Your task to perform on an android device: Set an alarm for 4pm Image 0: 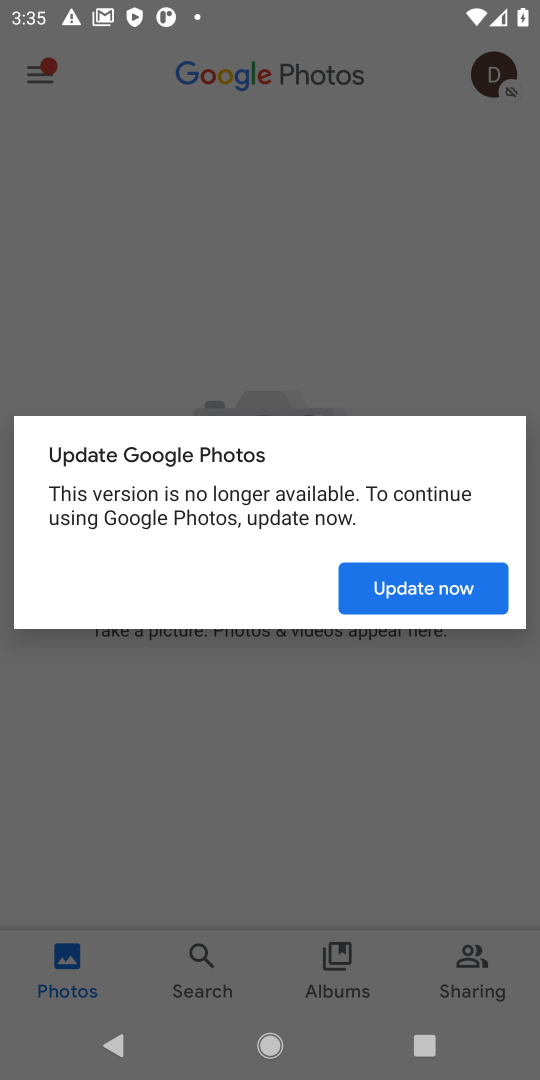
Step 0: press home button
Your task to perform on an android device: Set an alarm for 4pm Image 1: 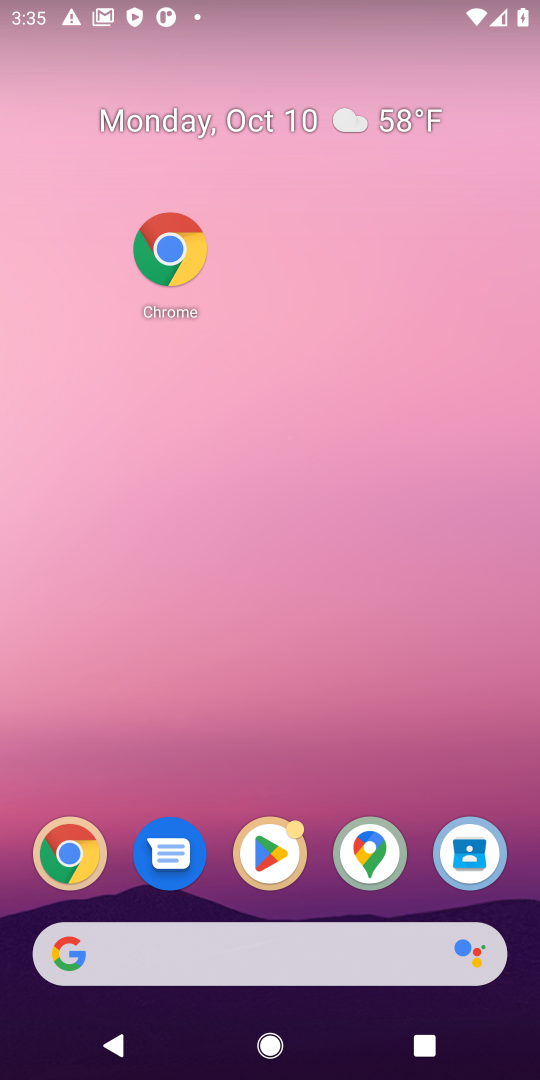
Step 1: drag from (223, 893) to (159, 179)
Your task to perform on an android device: Set an alarm for 4pm Image 2: 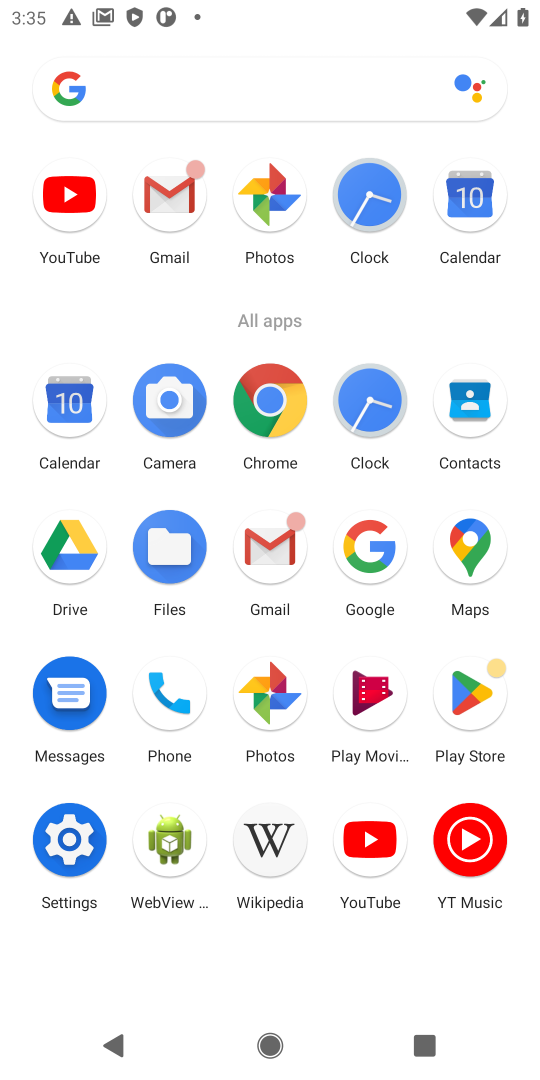
Step 2: click (380, 418)
Your task to perform on an android device: Set an alarm for 4pm Image 3: 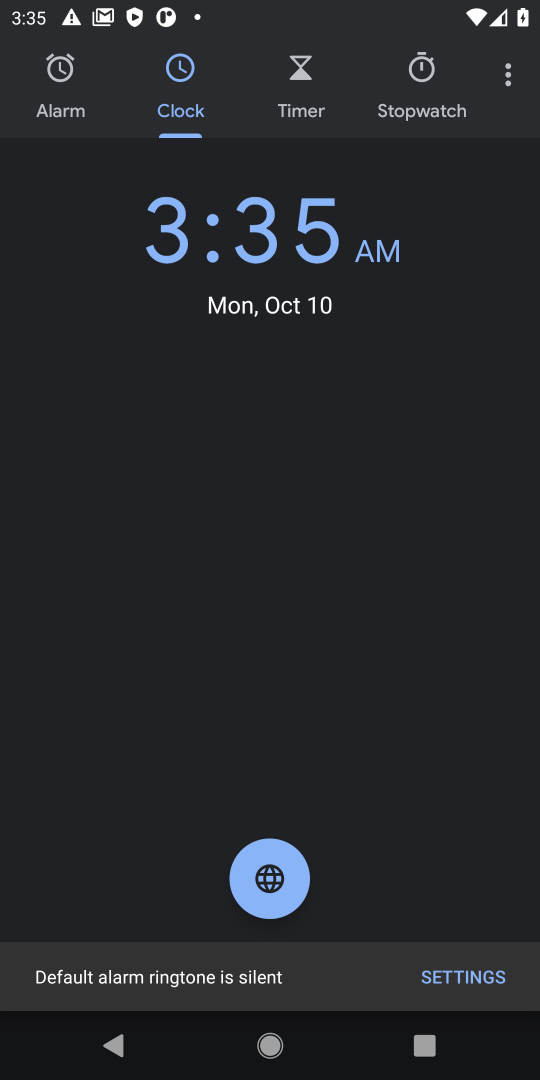
Step 3: click (49, 63)
Your task to perform on an android device: Set an alarm for 4pm Image 4: 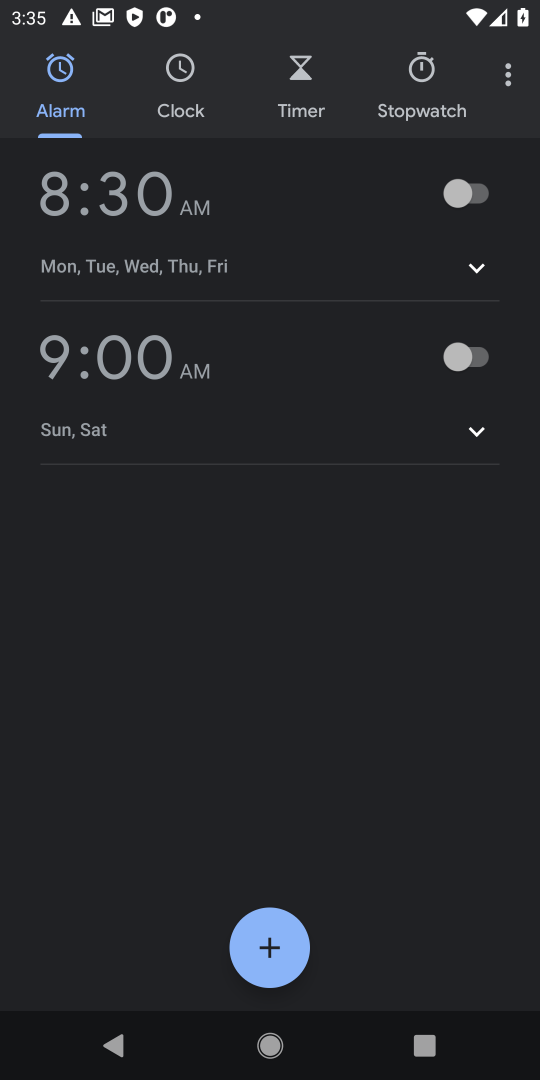
Step 4: click (118, 224)
Your task to perform on an android device: Set an alarm for 4pm Image 5: 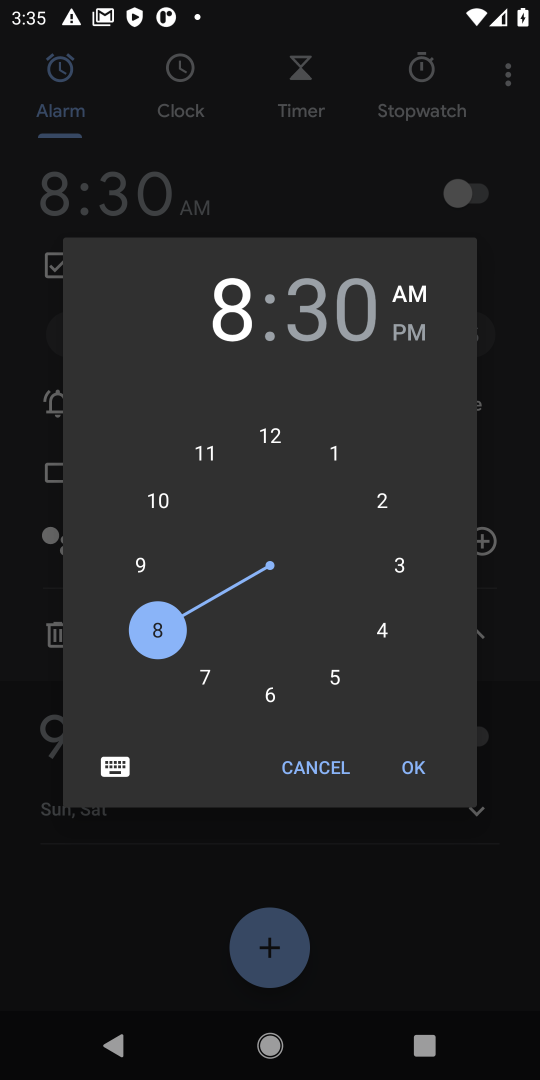
Step 5: click (380, 626)
Your task to perform on an android device: Set an alarm for 4pm Image 6: 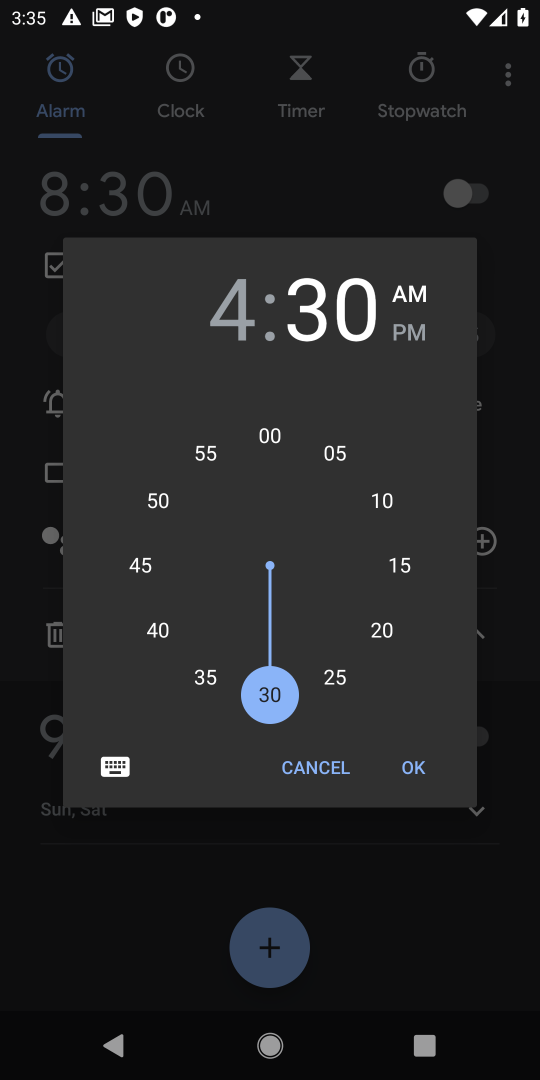
Step 6: click (261, 434)
Your task to perform on an android device: Set an alarm for 4pm Image 7: 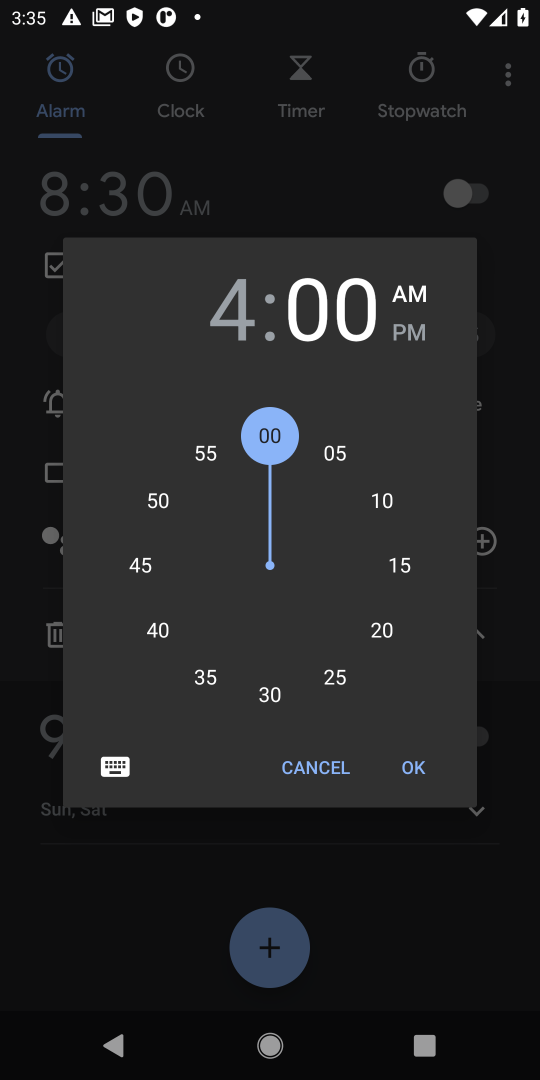
Step 7: click (409, 338)
Your task to perform on an android device: Set an alarm for 4pm Image 8: 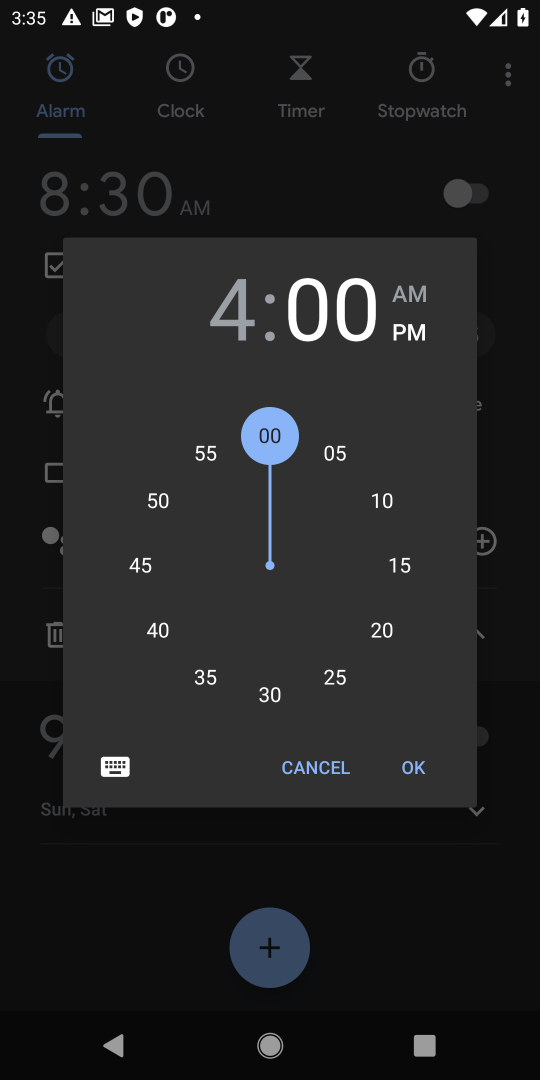
Step 8: click (401, 770)
Your task to perform on an android device: Set an alarm for 4pm Image 9: 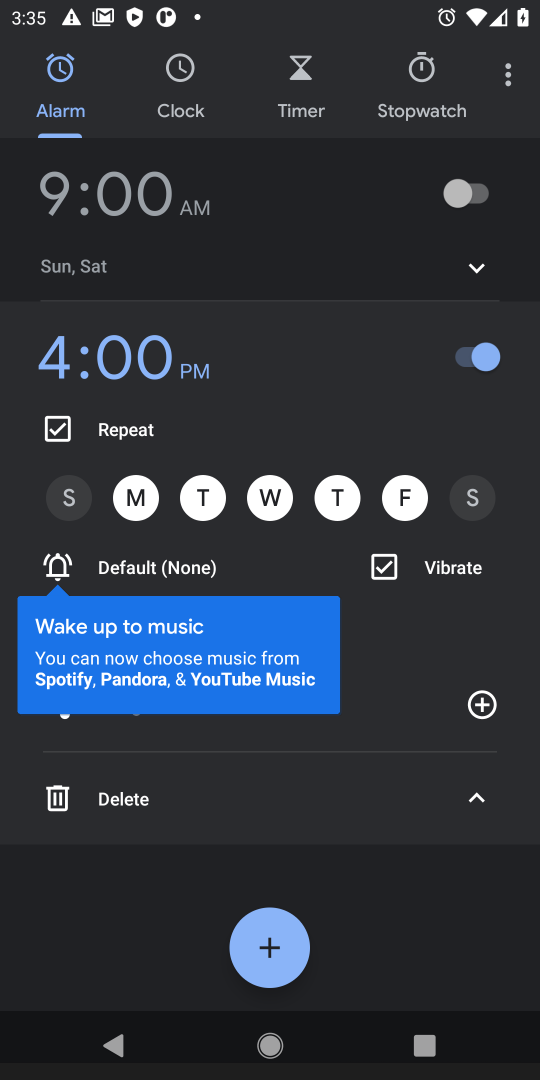
Step 9: task complete